Your task to perform on an android device: check out phone information Image 0: 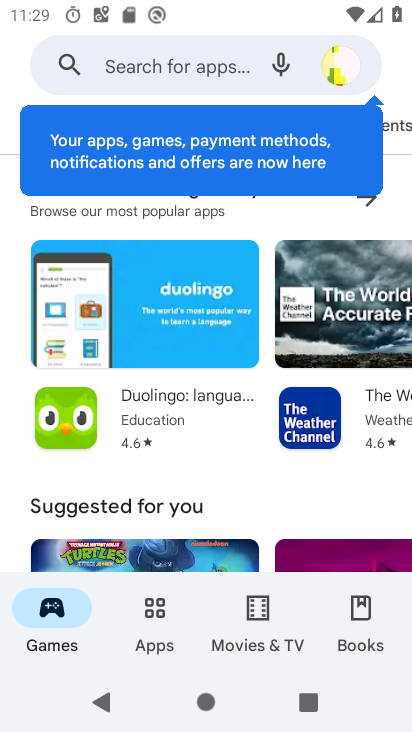
Step 0: press home button
Your task to perform on an android device: check out phone information Image 1: 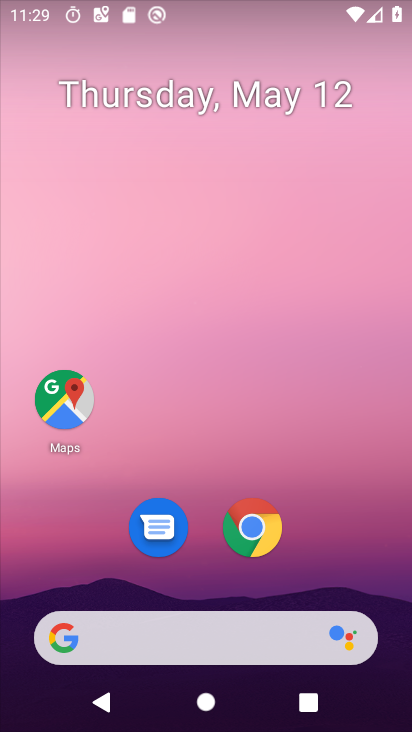
Step 1: drag from (305, 585) to (255, 161)
Your task to perform on an android device: check out phone information Image 2: 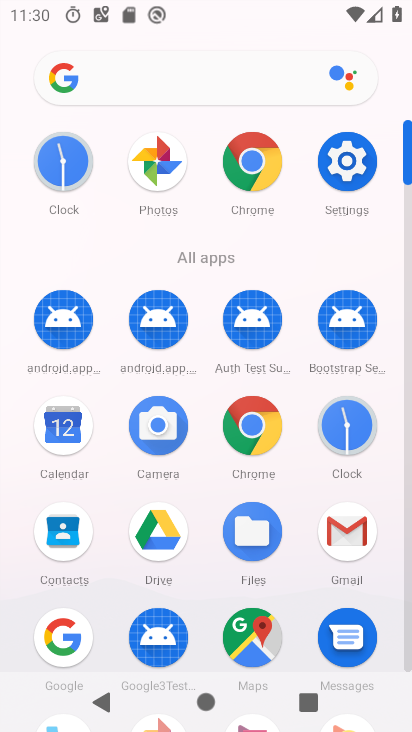
Step 2: click (332, 167)
Your task to perform on an android device: check out phone information Image 3: 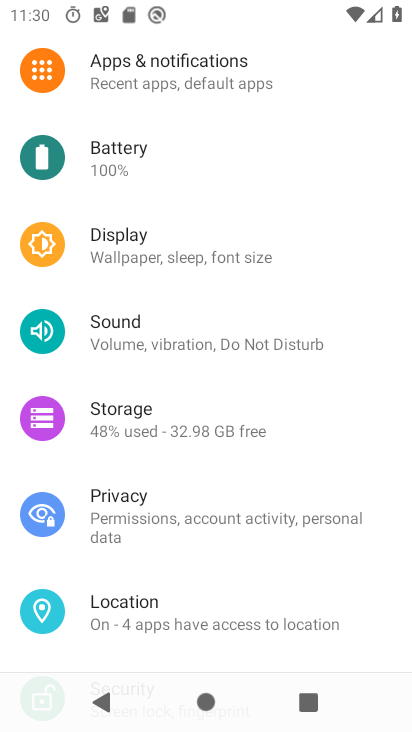
Step 3: drag from (227, 585) to (216, 286)
Your task to perform on an android device: check out phone information Image 4: 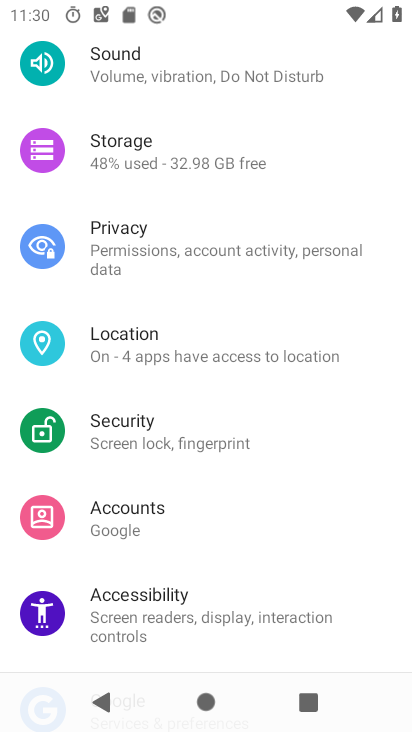
Step 4: drag from (199, 607) to (190, 284)
Your task to perform on an android device: check out phone information Image 5: 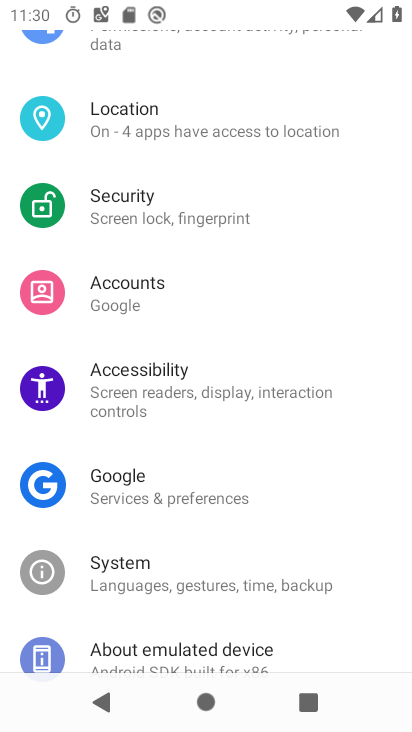
Step 5: drag from (164, 594) to (195, 227)
Your task to perform on an android device: check out phone information Image 6: 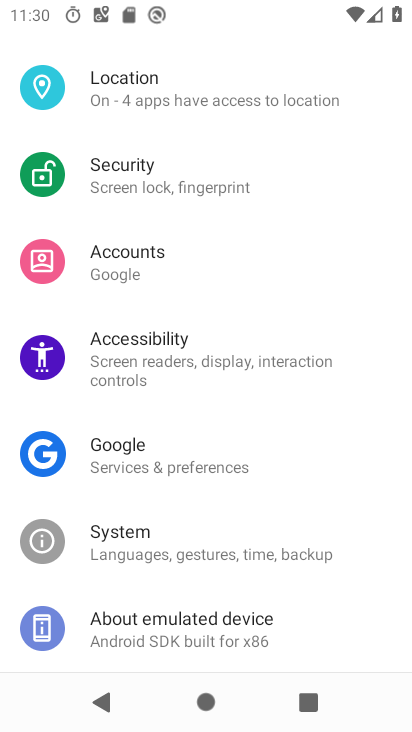
Step 6: click (187, 629)
Your task to perform on an android device: check out phone information Image 7: 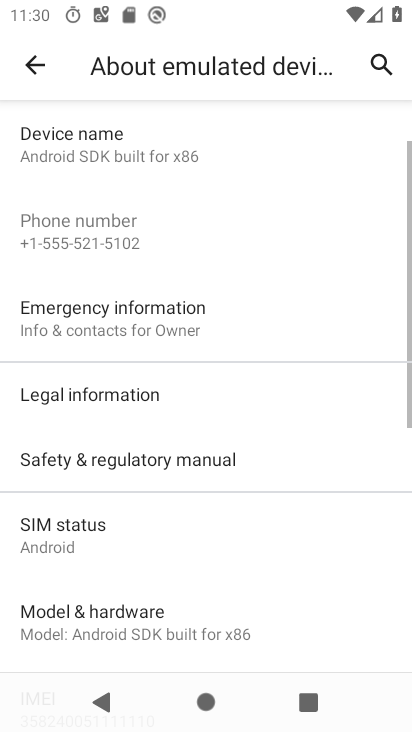
Step 7: task complete